Your task to perform on an android device: check the backup settings in the google photos Image 0: 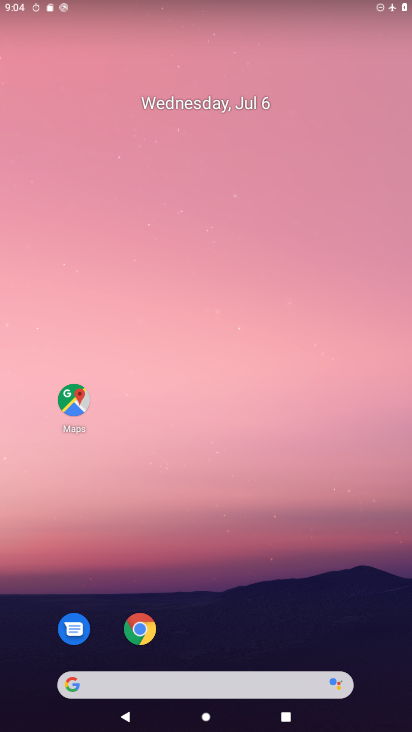
Step 0: drag from (231, 723) to (183, 70)
Your task to perform on an android device: check the backup settings in the google photos Image 1: 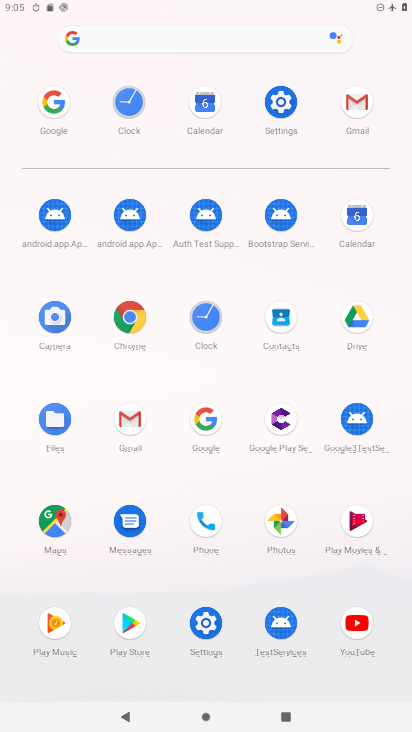
Step 1: click (282, 524)
Your task to perform on an android device: check the backup settings in the google photos Image 2: 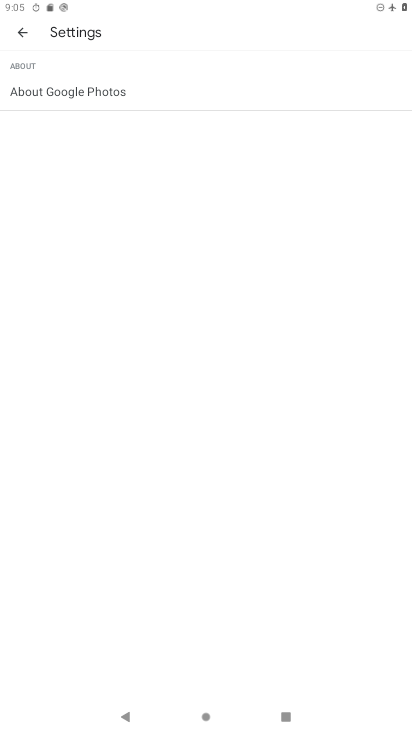
Step 2: click (24, 31)
Your task to perform on an android device: check the backup settings in the google photos Image 3: 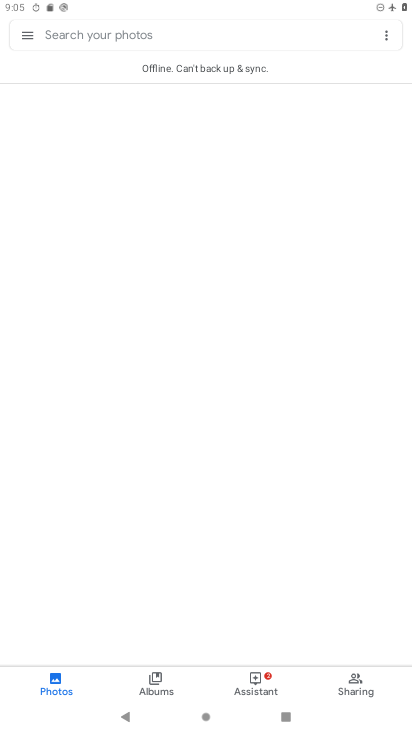
Step 3: click (28, 34)
Your task to perform on an android device: check the backup settings in the google photos Image 4: 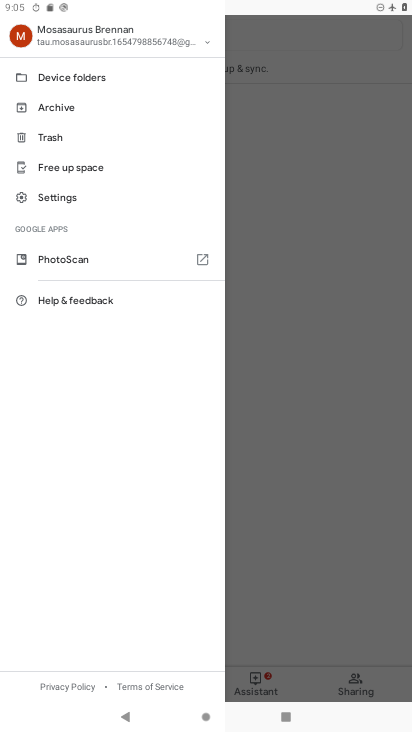
Step 4: click (62, 195)
Your task to perform on an android device: check the backup settings in the google photos Image 5: 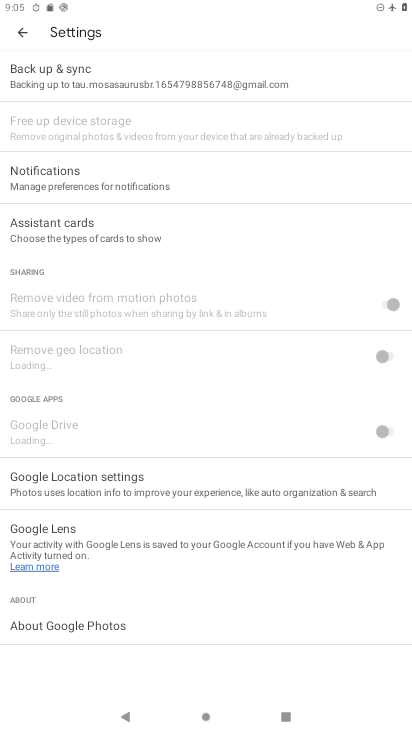
Step 5: click (86, 69)
Your task to perform on an android device: check the backup settings in the google photos Image 6: 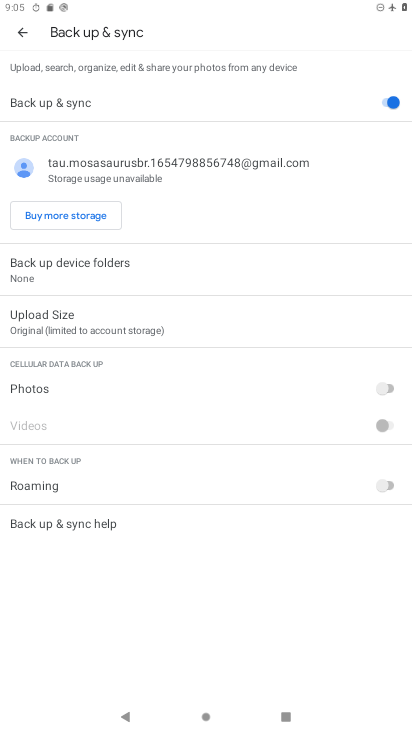
Step 6: click (58, 100)
Your task to perform on an android device: check the backup settings in the google photos Image 7: 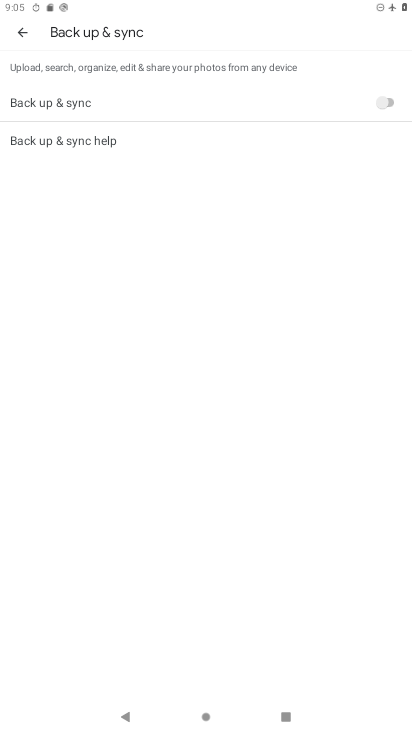
Step 7: click (390, 99)
Your task to perform on an android device: check the backup settings in the google photos Image 8: 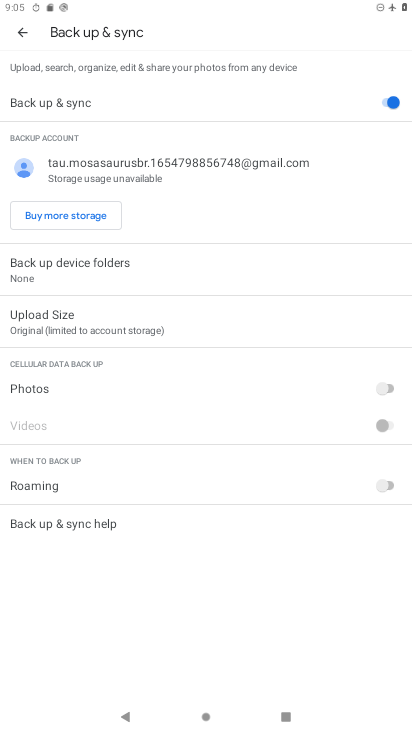
Step 8: task complete